Your task to perform on an android device: open a bookmark in the chrome app Image 0: 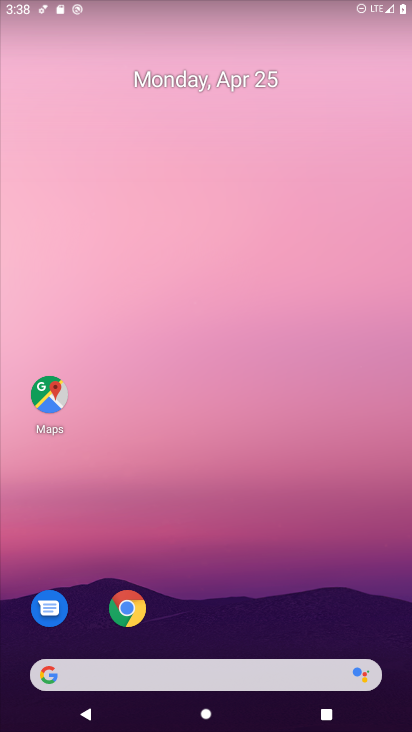
Step 0: drag from (249, 693) to (398, 174)
Your task to perform on an android device: open a bookmark in the chrome app Image 1: 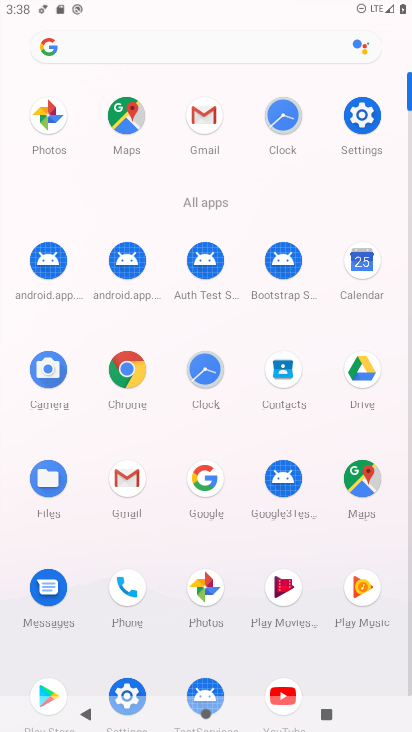
Step 1: click (128, 364)
Your task to perform on an android device: open a bookmark in the chrome app Image 2: 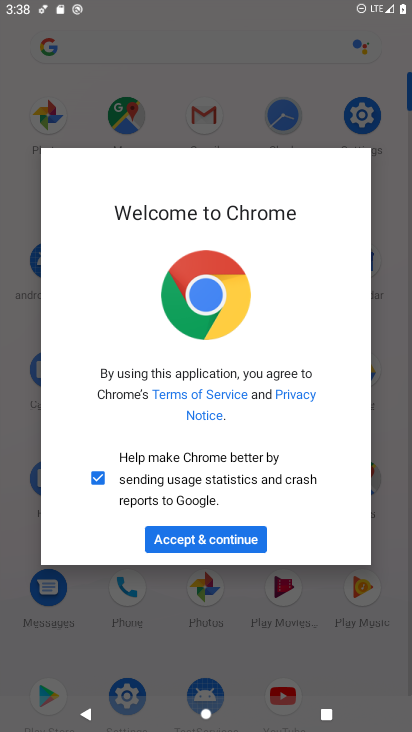
Step 2: click (187, 545)
Your task to perform on an android device: open a bookmark in the chrome app Image 3: 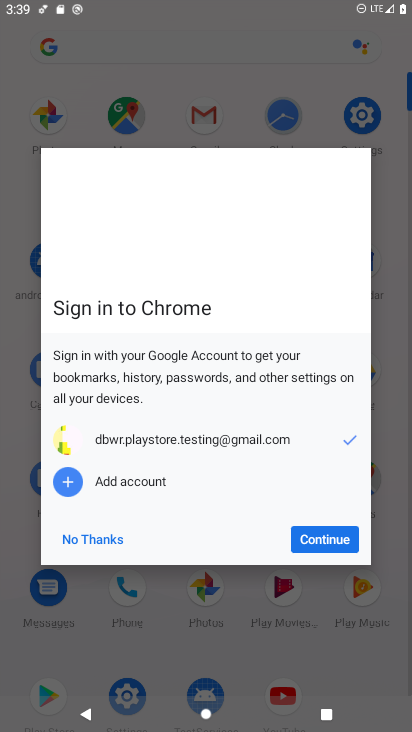
Step 3: click (315, 533)
Your task to perform on an android device: open a bookmark in the chrome app Image 4: 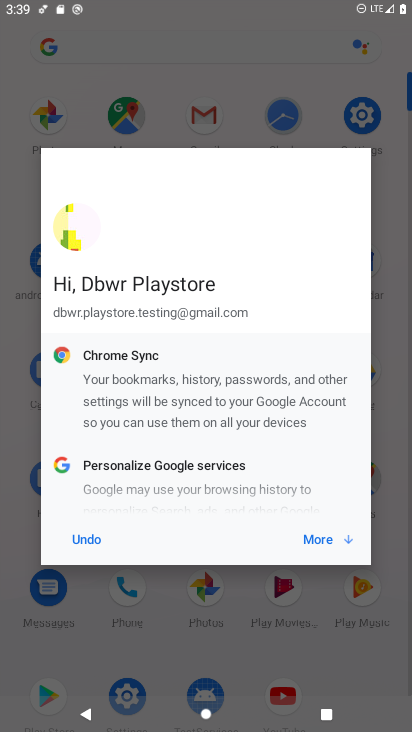
Step 4: click (331, 542)
Your task to perform on an android device: open a bookmark in the chrome app Image 5: 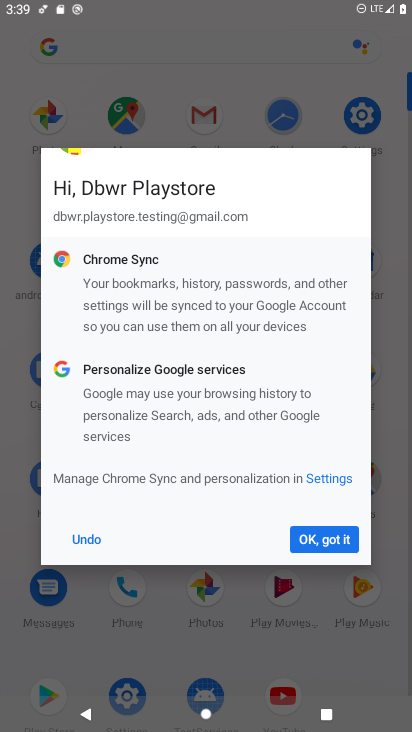
Step 5: click (327, 546)
Your task to perform on an android device: open a bookmark in the chrome app Image 6: 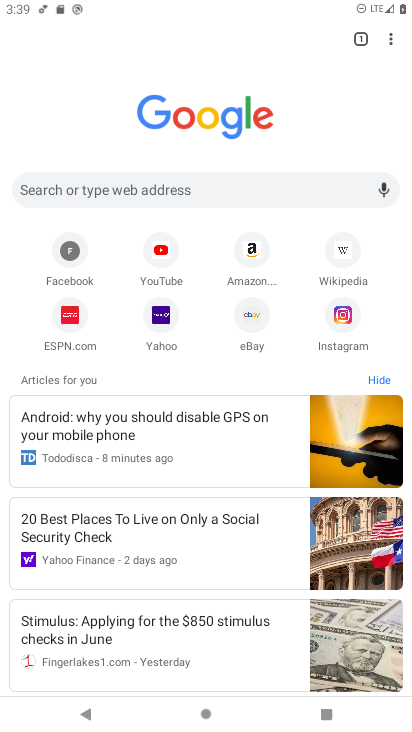
Step 6: click (393, 49)
Your task to perform on an android device: open a bookmark in the chrome app Image 7: 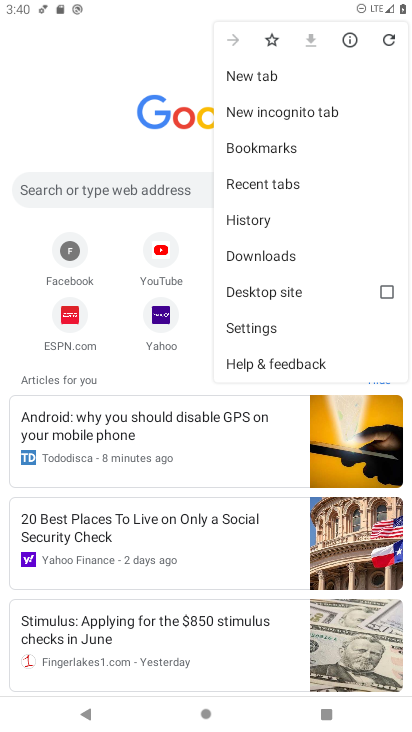
Step 7: click (269, 153)
Your task to perform on an android device: open a bookmark in the chrome app Image 8: 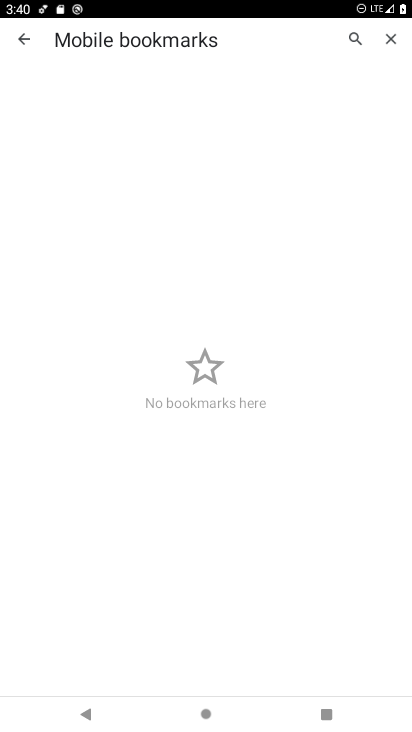
Step 8: task complete